Your task to perform on an android device: turn off javascript in the chrome app Image 0: 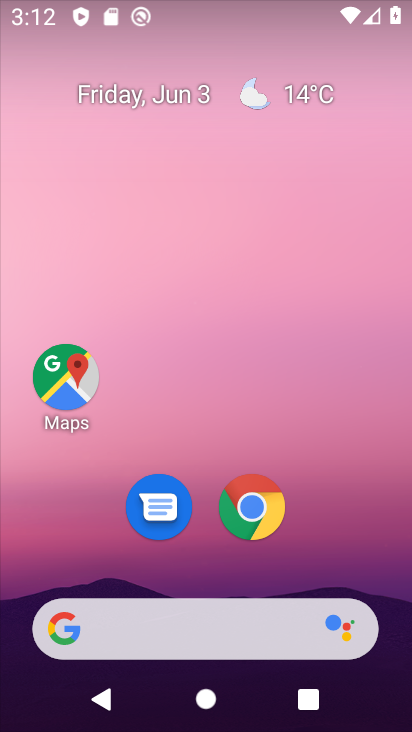
Step 0: click (253, 505)
Your task to perform on an android device: turn off javascript in the chrome app Image 1: 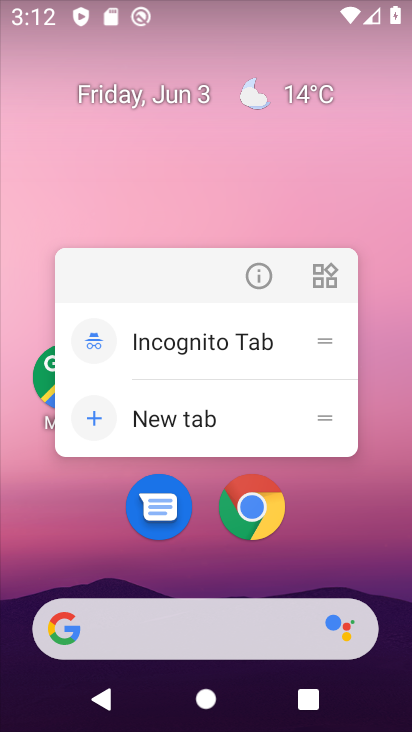
Step 1: click (253, 505)
Your task to perform on an android device: turn off javascript in the chrome app Image 2: 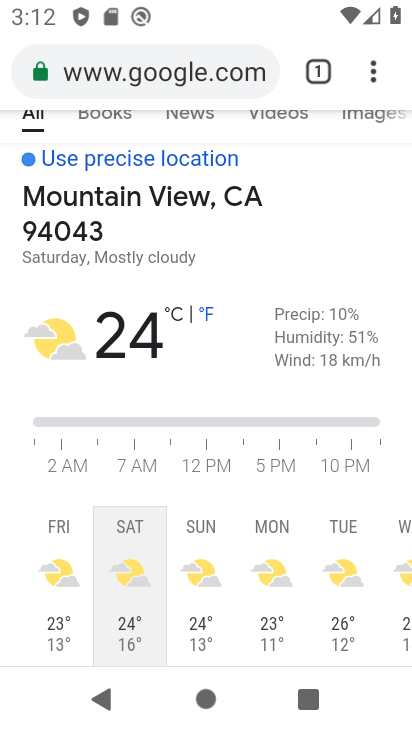
Step 2: click (372, 71)
Your task to perform on an android device: turn off javascript in the chrome app Image 3: 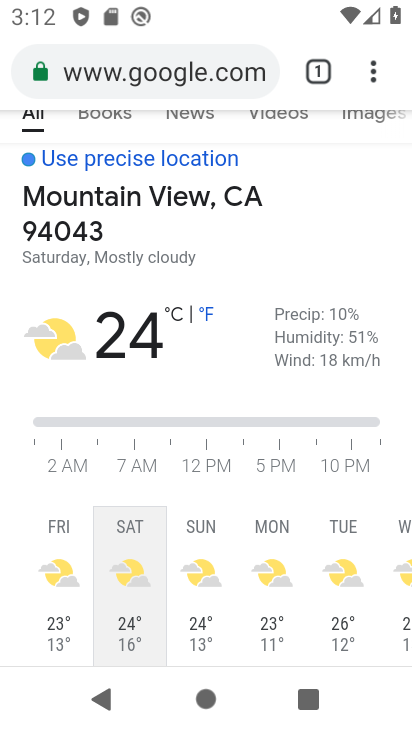
Step 3: click (372, 74)
Your task to perform on an android device: turn off javascript in the chrome app Image 4: 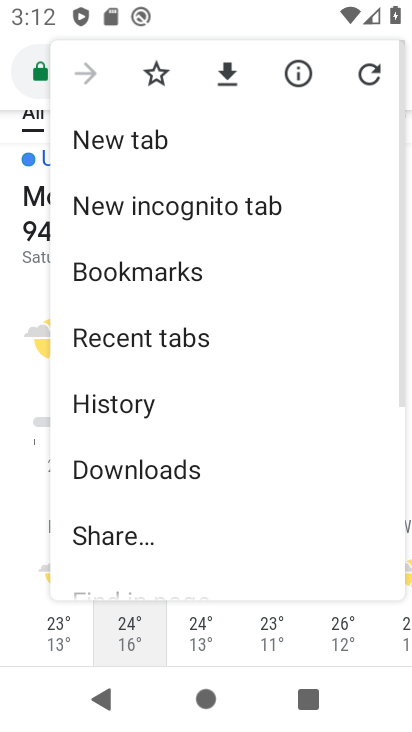
Step 4: drag from (155, 522) to (269, 138)
Your task to perform on an android device: turn off javascript in the chrome app Image 5: 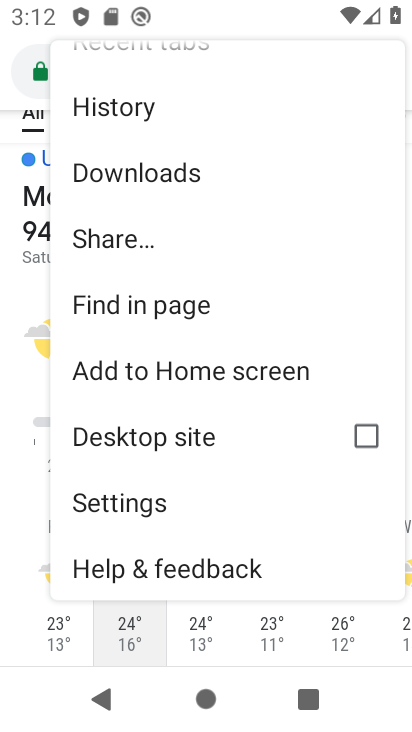
Step 5: click (140, 508)
Your task to perform on an android device: turn off javascript in the chrome app Image 6: 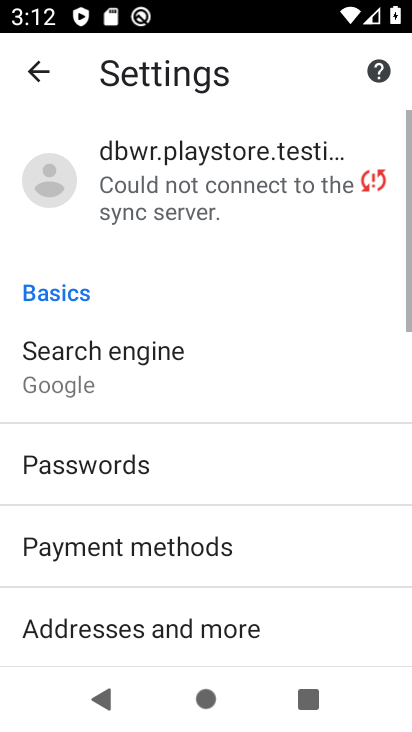
Step 6: drag from (179, 570) to (275, 226)
Your task to perform on an android device: turn off javascript in the chrome app Image 7: 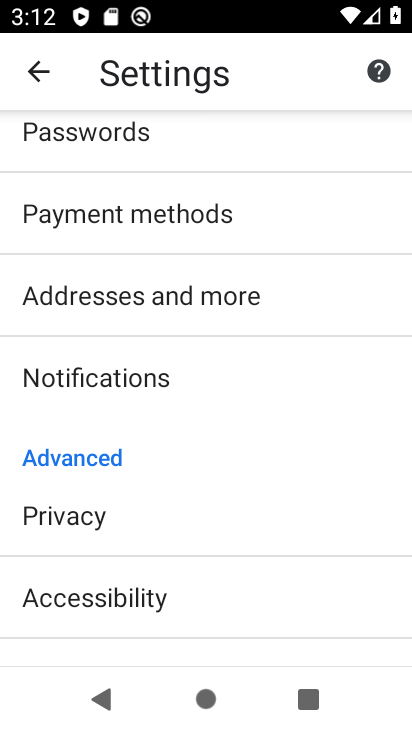
Step 7: drag from (121, 608) to (198, 209)
Your task to perform on an android device: turn off javascript in the chrome app Image 8: 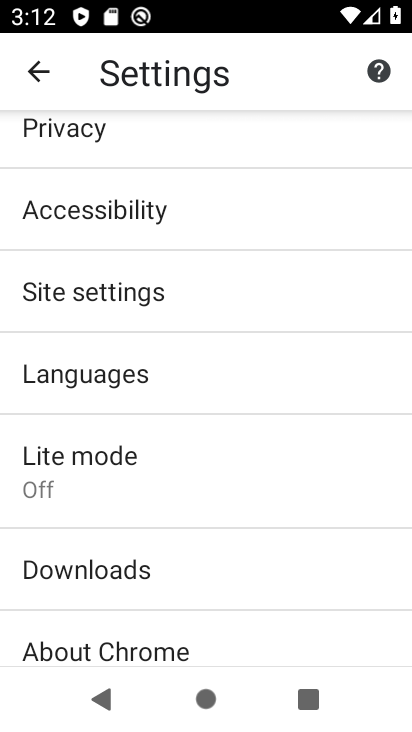
Step 8: click (111, 288)
Your task to perform on an android device: turn off javascript in the chrome app Image 9: 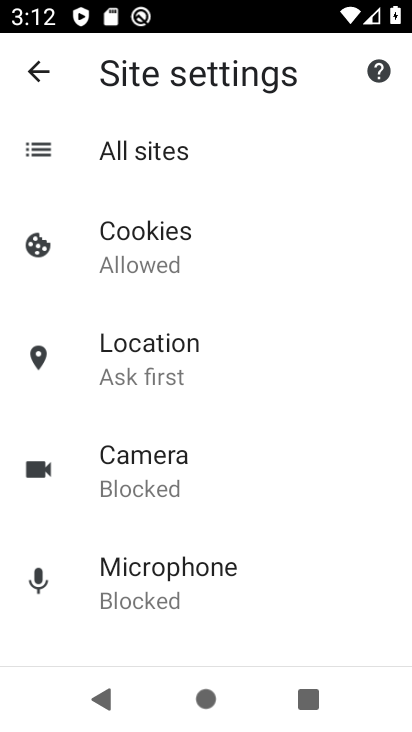
Step 9: drag from (182, 563) to (245, 151)
Your task to perform on an android device: turn off javascript in the chrome app Image 10: 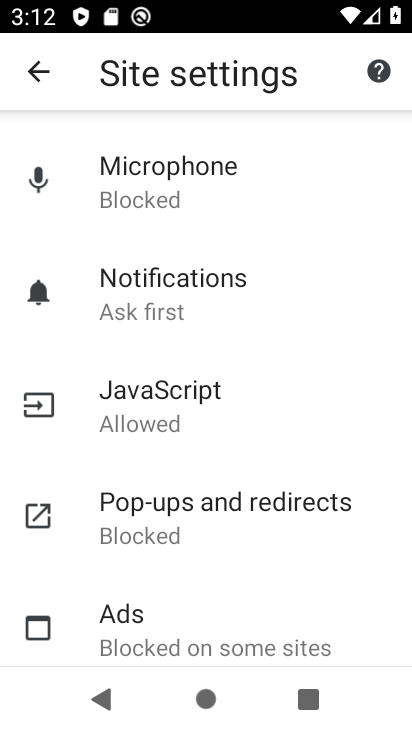
Step 10: click (164, 411)
Your task to perform on an android device: turn off javascript in the chrome app Image 11: 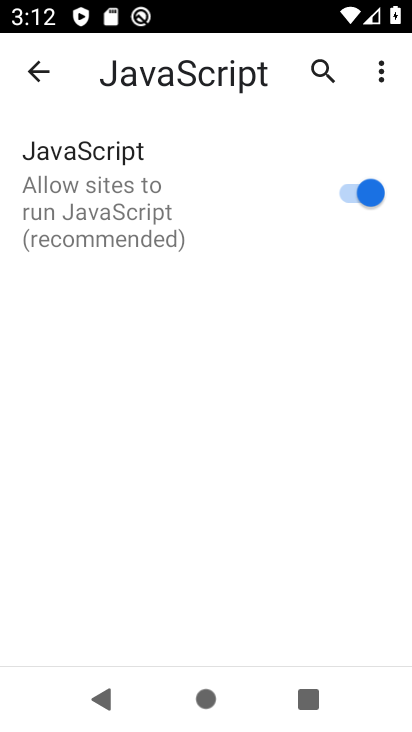
Step 11: click (350, 192)
Your task to perform on an android device: turn off javascript in the chrome app Image 12: 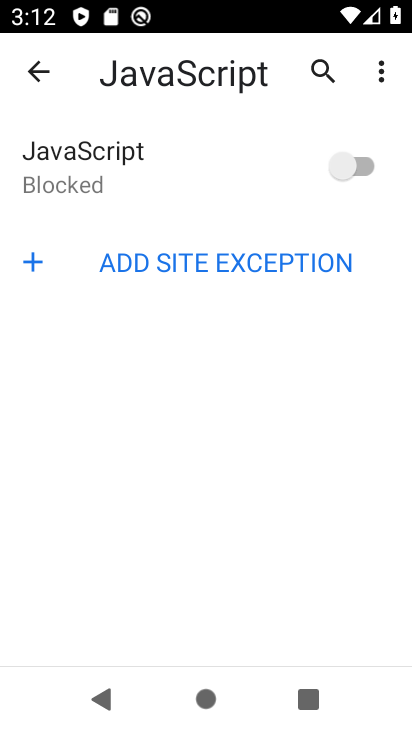
Step 12: task complete